Your task to perform on an android device: Set the phone to "Do not disturb". Image 0: 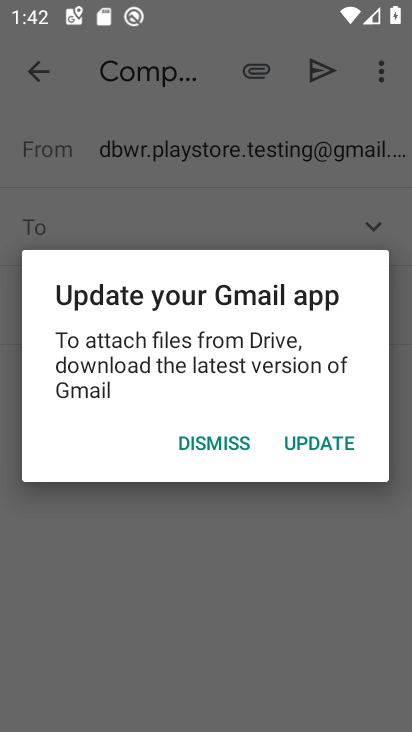
Step 0: drag from (246, 12) to (226, 527)
Your task to perform on an android device: Set the phone to "Do not disturb". Image 1: 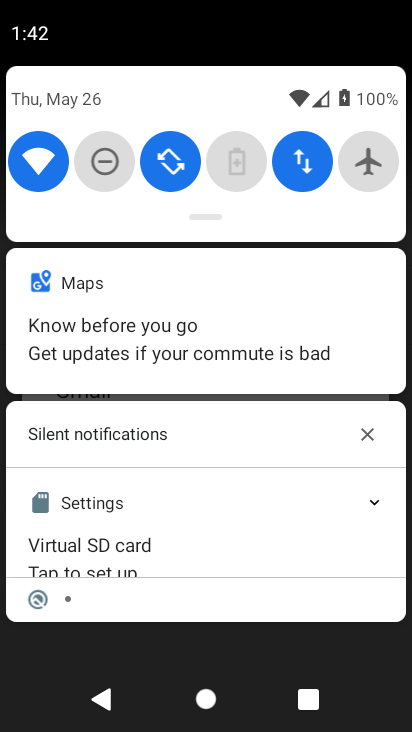
Step 1: click (108, 156)
Your task to perform on an android device: Set the phone to "Do not disturb". Image 2: 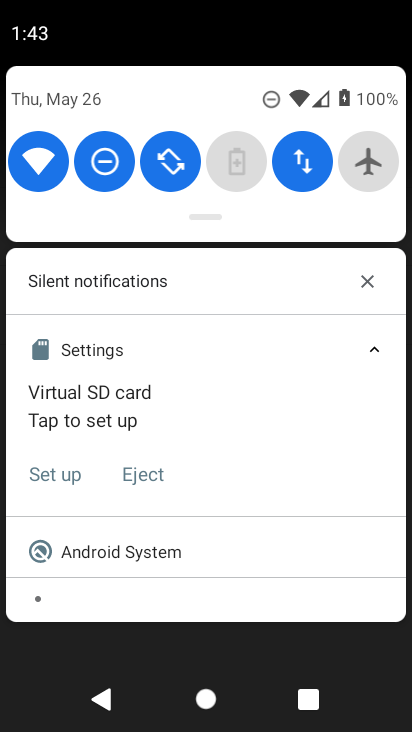
Step 2: task complete